Your task to perform on an android device: clear history in the chrome app Image 0: 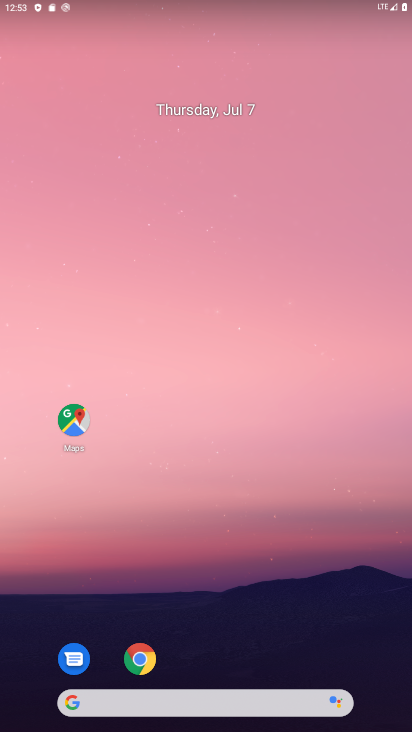
Step 0: click (139, 666)
Your task to perform on an android device: clear history in the chrome app Image 1: 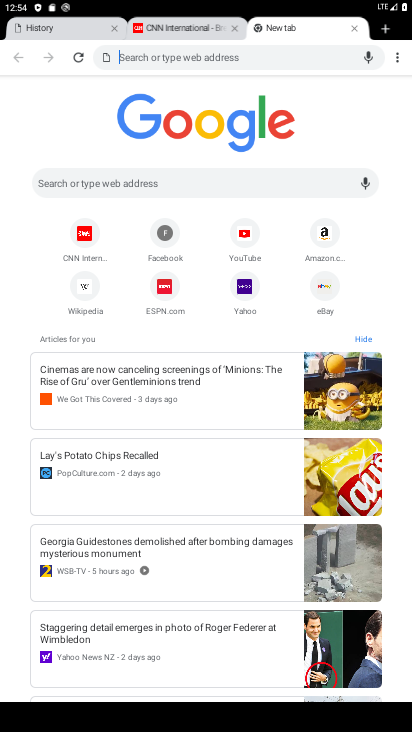
Step 1: click (398, 55)
Your task to perform on an android device: clear history in the chrome app Image 2: 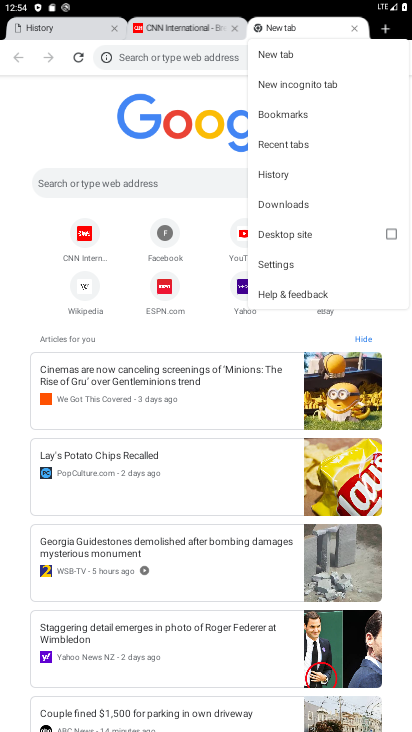
Step 2: click (278, 172)
Your task to perform on an android device: clear history in the chrome app Image 3: 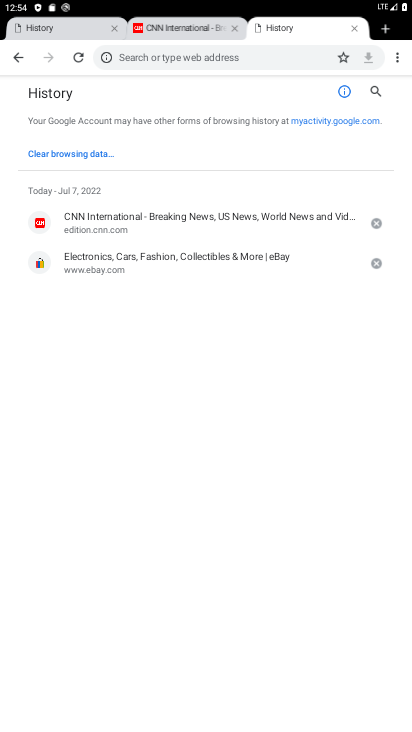
Step 3: click (71, 144)
Your task to perform on an android device: clear history in the chrome app Image 4: 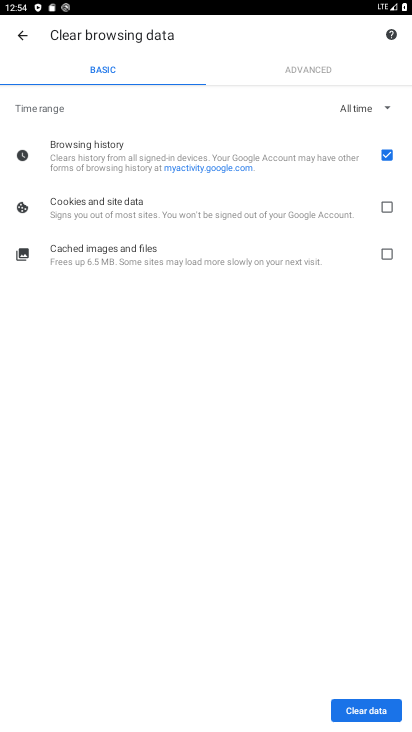
Step 4: click (353, 706)
Your task to perform on an android device: clear history in the chrome app Image 5: 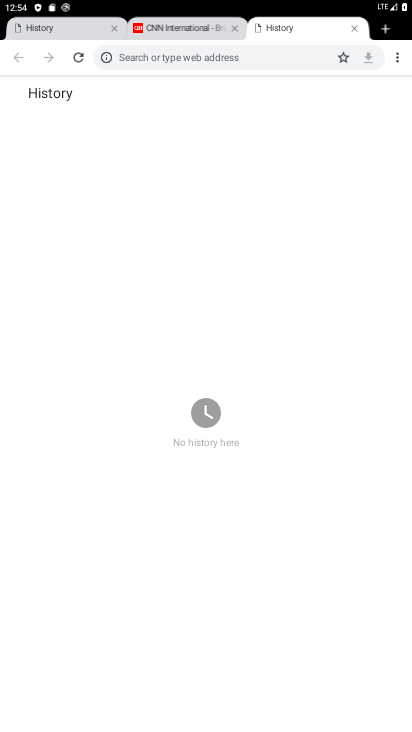
Step 5: task complete